Your task to perform on an android device: star an email in the gmail app Image 0: 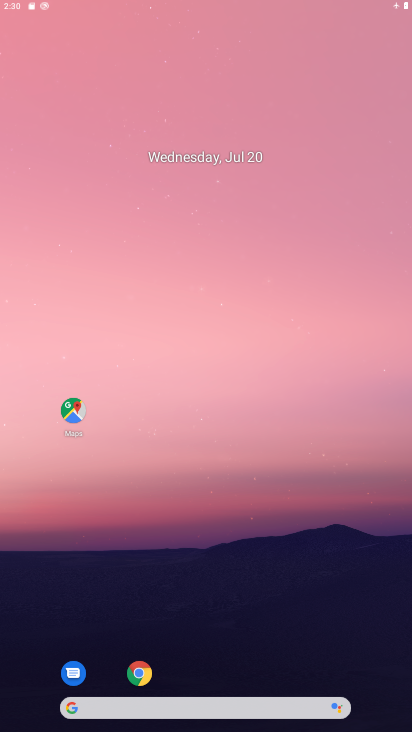
Step 0: drag from (337, 38) to (408, 159)
Your task to perform on an android device: star an email in the gmail app Image 1: 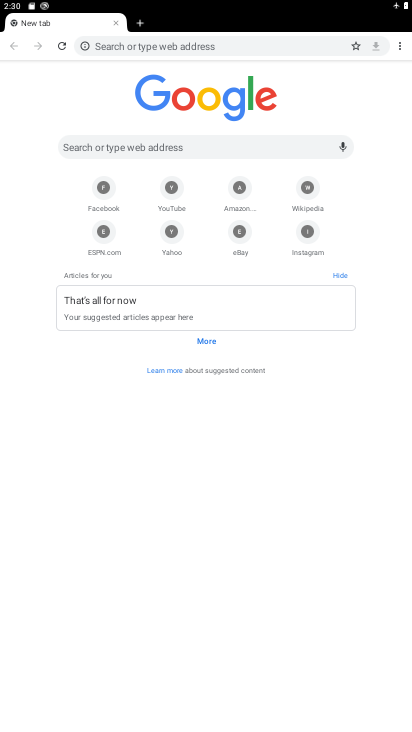
Step 1: click (353, 46)
Your task to perform on an android device: star an email in the gmail app Image 2: 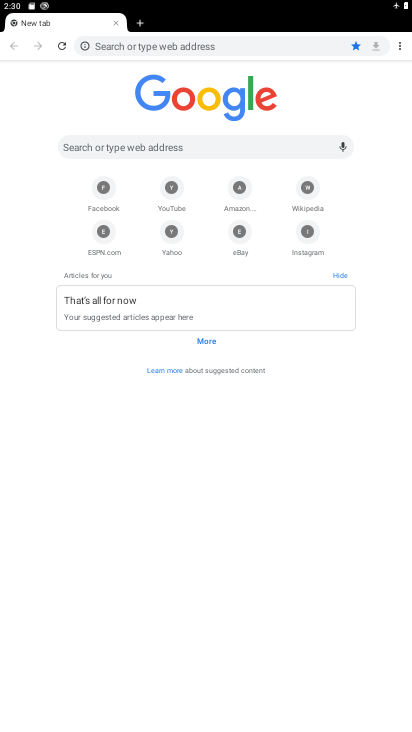
Step 2: press home button
Your task to perform on an android device: star an email in the gmail app Image 3: 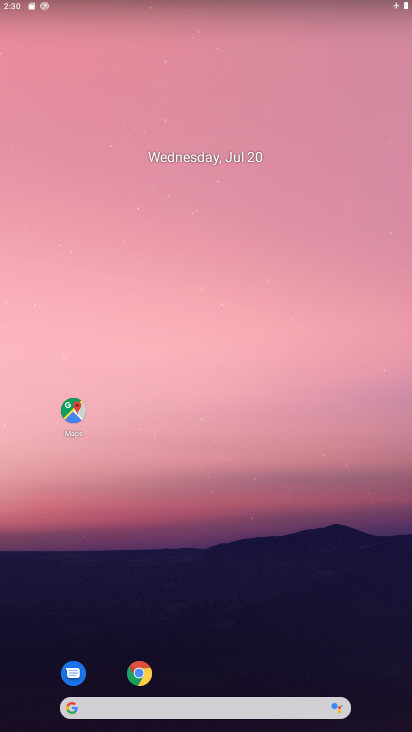
Step 3: drag from (231, 649) to (255, 122)
Your task to perform on an android device: star an email in the gmail app Image 4: 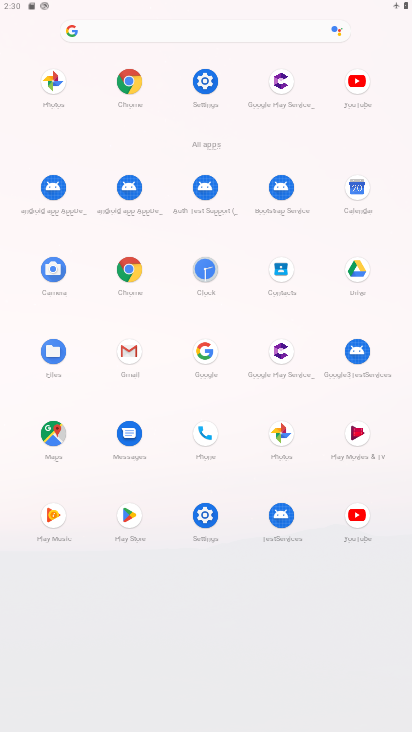
Step 4: click (130, 353)
Your task to perform on an android device: star an email in the gmail app Image 5: 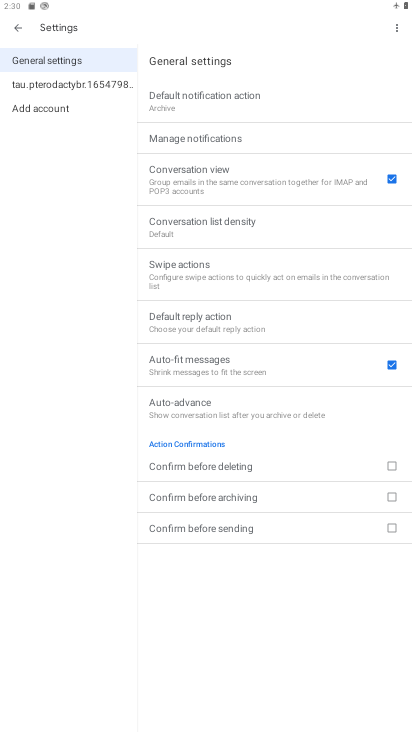
Step 5: click (18, 26)
Your task to perform on an android device: star an email in the gmail app Image 6: 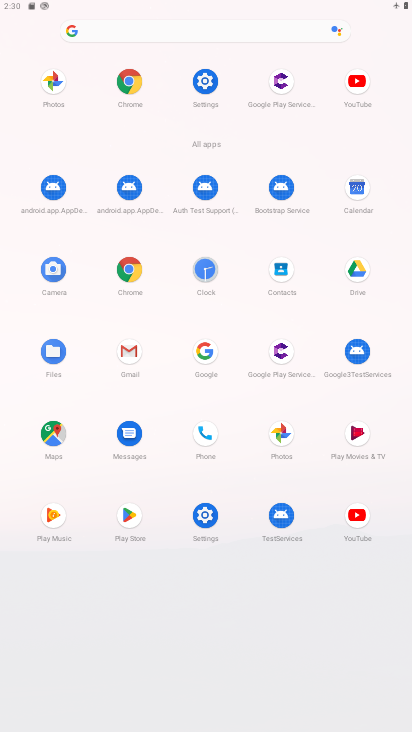
Step 6: click (132, 370)
Your task to perform on an android device: star an email in the gmail app Image 7: 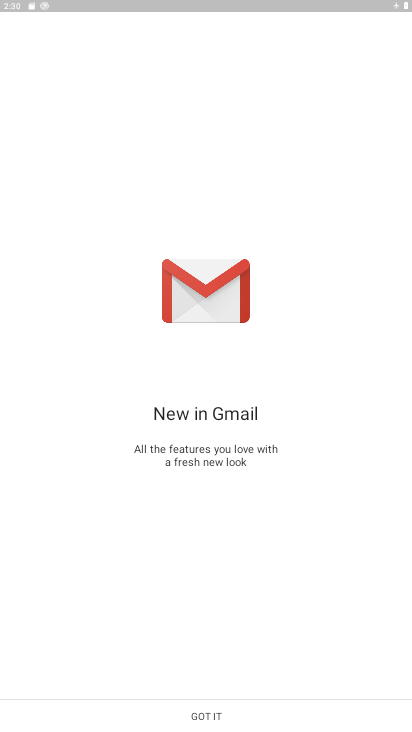
Step 7: click (211, 713)
Your task to perform on an android device: star an email in the gmail app Image 8: 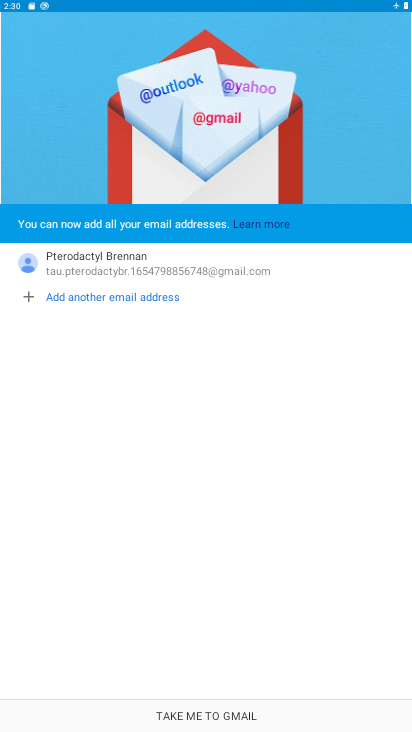
Step 8: click (217, 720)
Your task to perform on an android device: star an email in the gmail app Image 9: 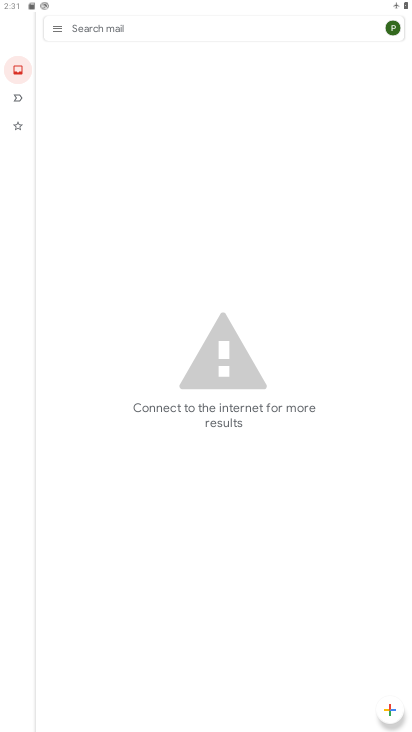
Step 9: task complete